Your task to perform on an android device: Search for vegetarian restaurants on Maps Image 0: 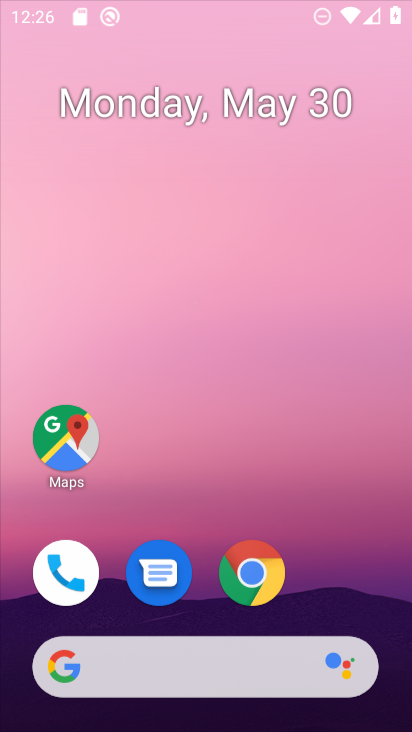
Step 0: press home button
Your task to perform on an android device: Search for vegetarian restaurants on Maps Image 1: 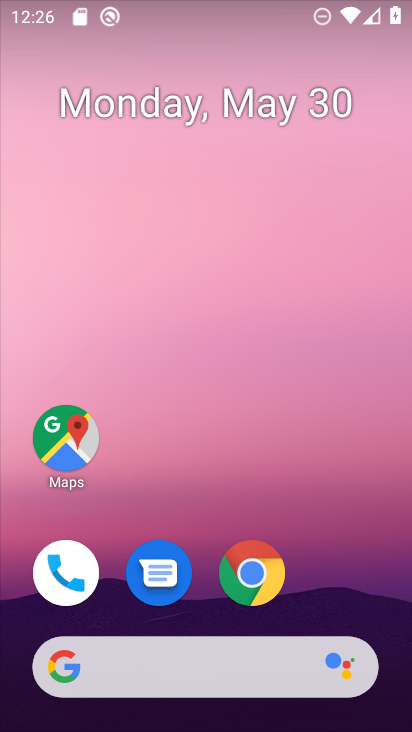
Step 1: click (36, 479)
Your task to perform on an android device: Search for vegetarian restaurants on Maps Image 2: 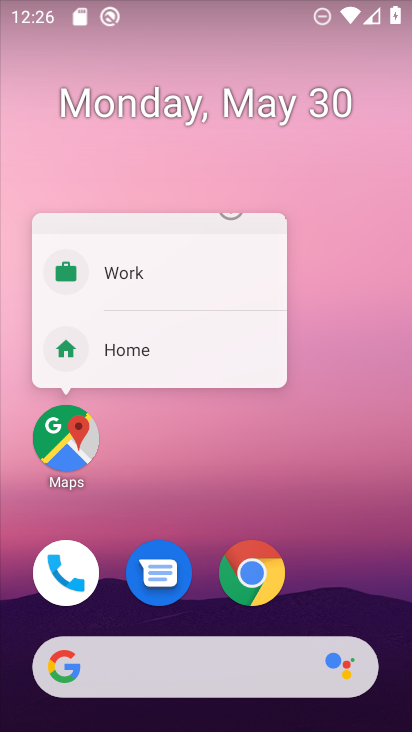
Step 2: click (51, 444)
Your task to perform on an android device: Search for vegetarian restaurants on Maps Image 3: 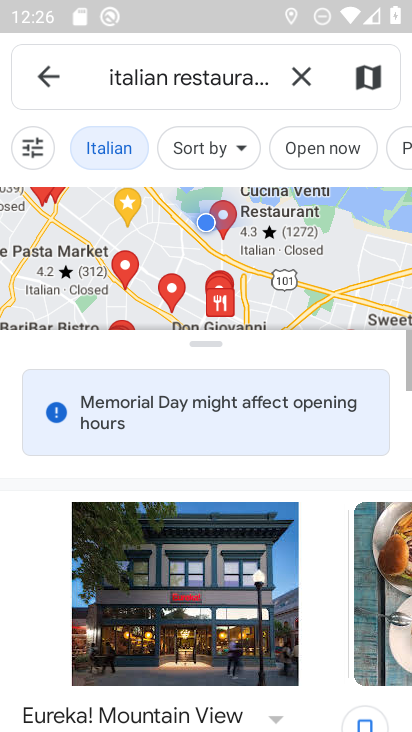
Step 3: click (306, 72)
Your task to perform on an android device: Search for vegetarian restaurants on Maps Image 4: 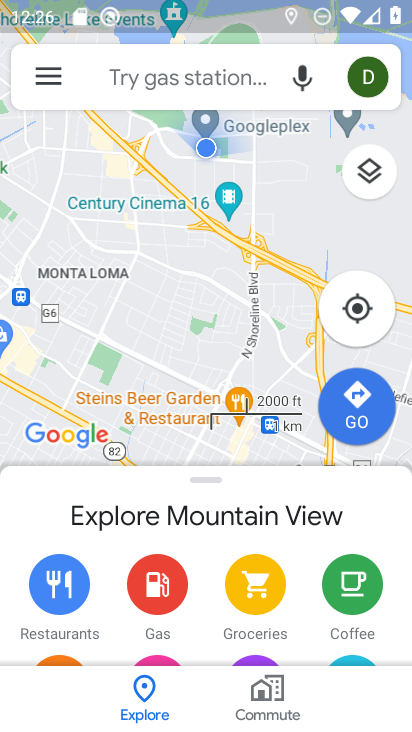
Step 4: click (190, 80)
Your task to perform on an android device: Search for vegetarian restaurants on Maps Image 5: 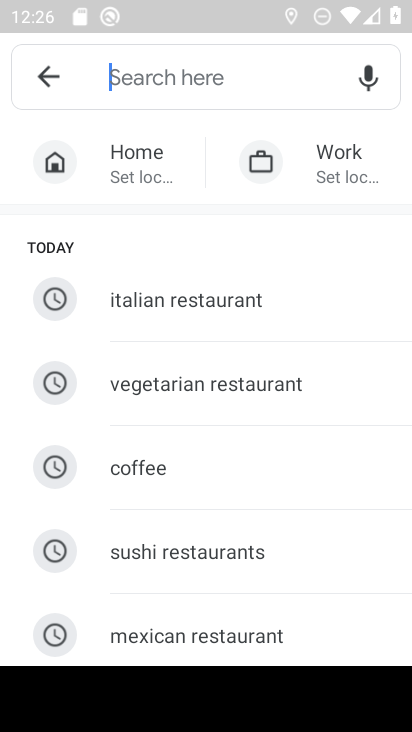
Step 5: click (208, 389)
Your task to perform on an android device: Search for vegetarian restaurants on Maps Image 6: 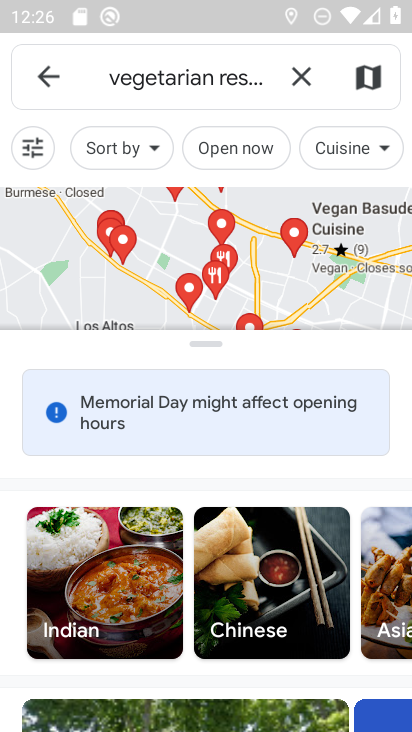
Step 6: task complete